Your task to perform on an android device: Open sound settings Image 0: 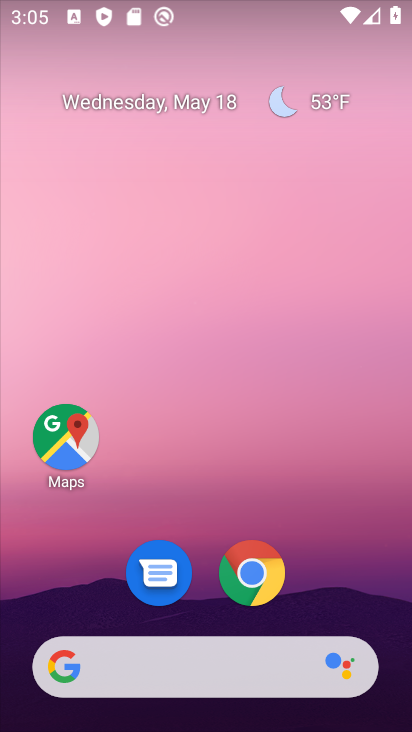
Step 0: drag from (213, 620) to (204, 224)
Your task to perform on an android device: Open sound settings Image 1: 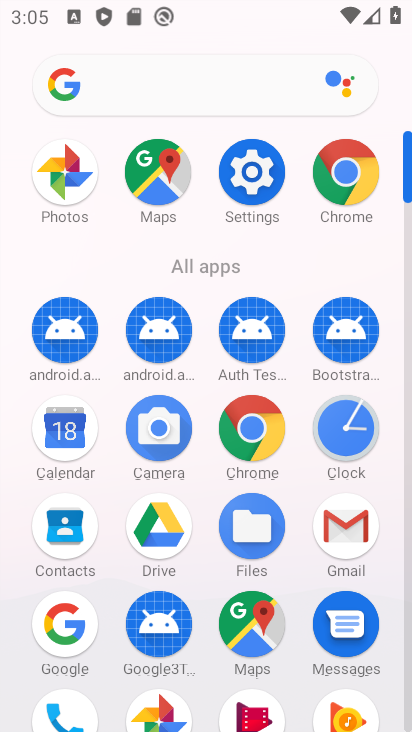
Step 1: click (242, 181)
Your task to perform on an android device: Open sound settings Image 2: 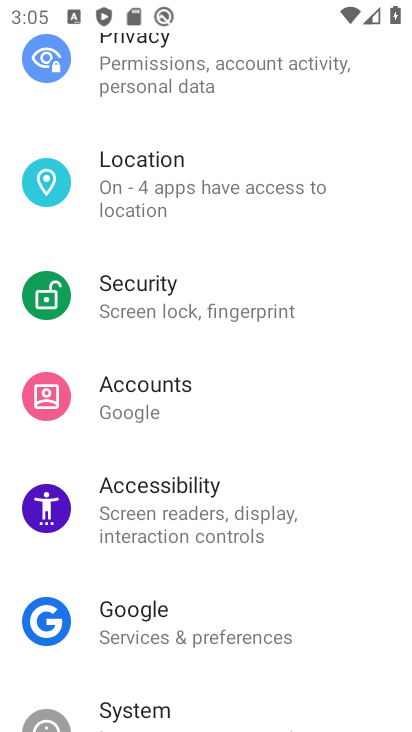
Step 2: drag from (215, 273) to (184, 566)
Your task to perform on an android device: Open sound settings Image 3: 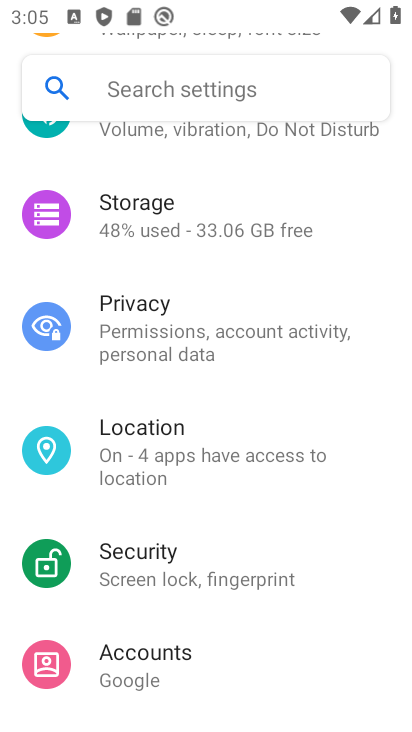
Step 3: drag from (176, 304) to (202, 570)
Your task to perform on an android device: Open sound settings Image 4: 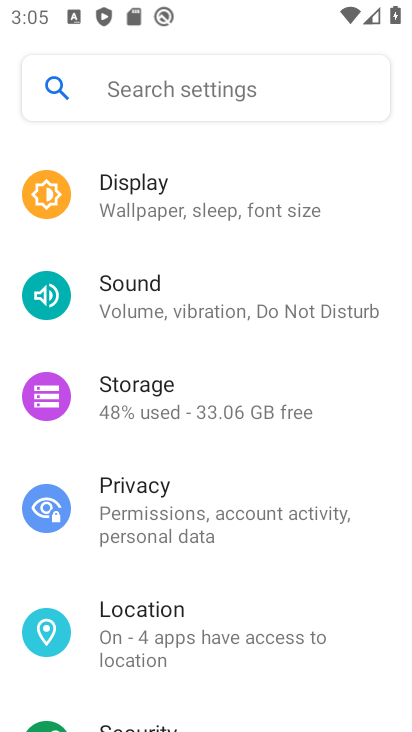
Step 4: click (141, 303)
Your task to perform on an android device: Open sound settings Image 5: 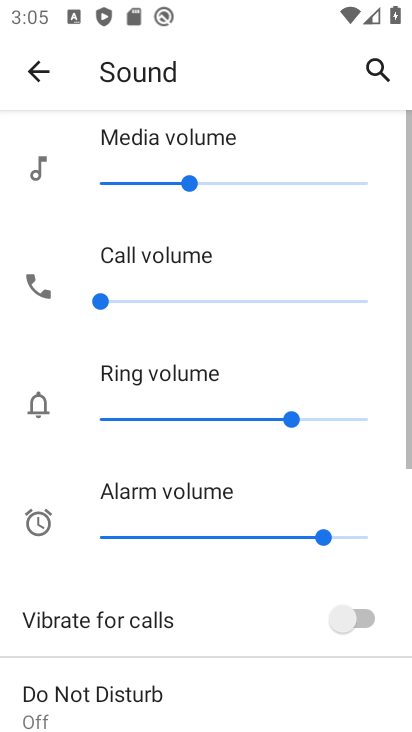
Step 5: task complete